Your task to perform on an android device: Open calendar and show me the second week of next month Image 0: 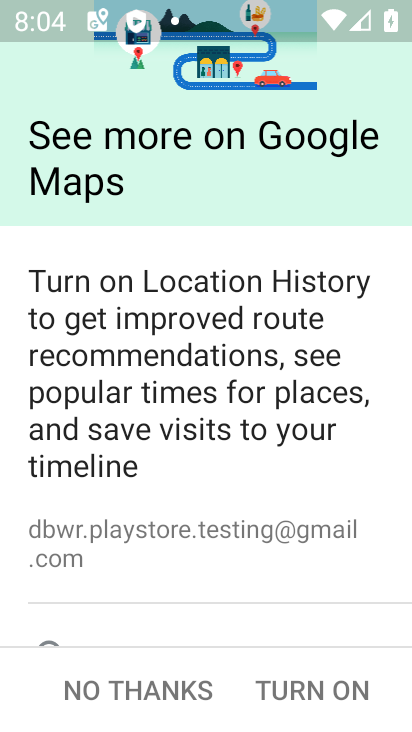
Step 0: press home button
Your task to perform on an android device: Open calendar and show me the second week of next month Image 1: 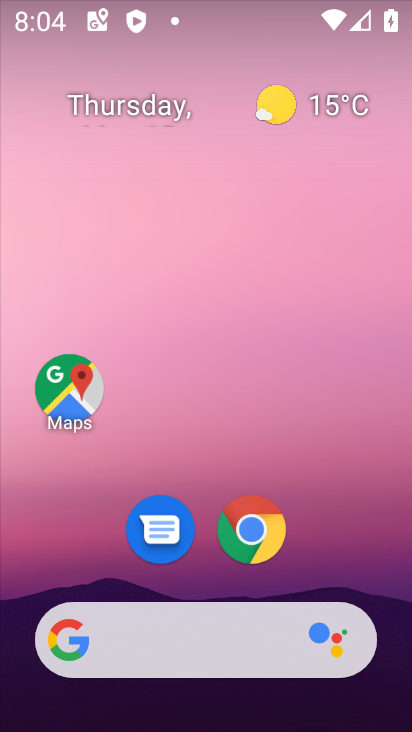
Step 1: drag from (270, 709) to (204, 39)
Your task to perform on an android device: Open calendar and show me the second week of next month Image 2: 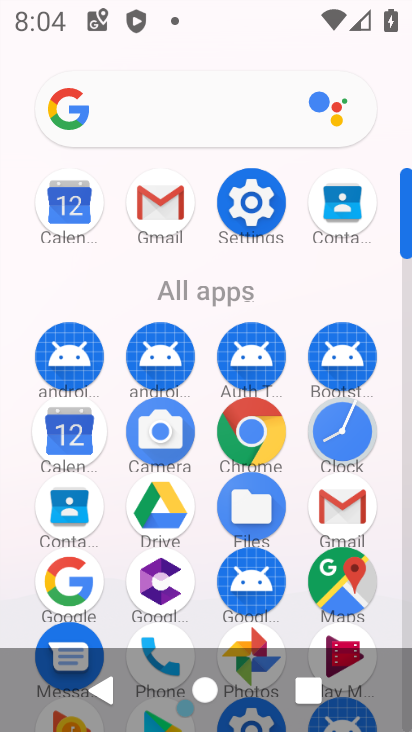
Step 2: click (45, 429)
Your task to perform on an android device: Open calendar and show me the second week of next month Image 3: 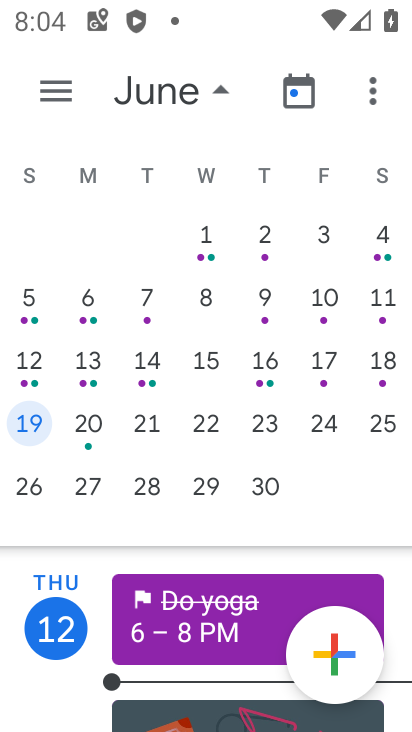
Step 3: click (21, 300)
Your task to perform on an android device: Open calendar and show me the second week of next month Image 4: 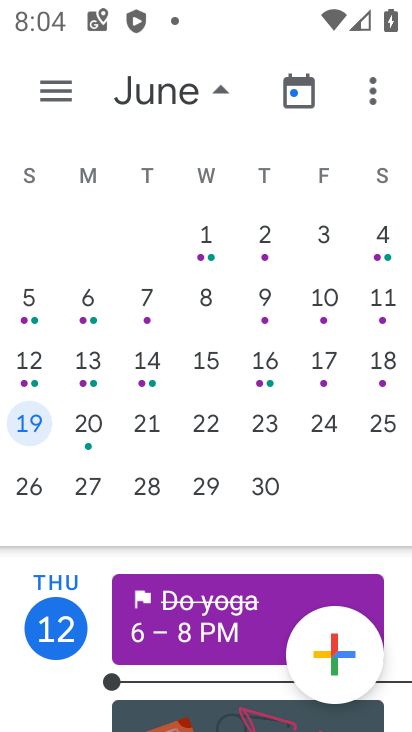
Step 4: click (31, 299)
Your task to perform on an android device: Open calendar and show me the second week of next month Image 5: 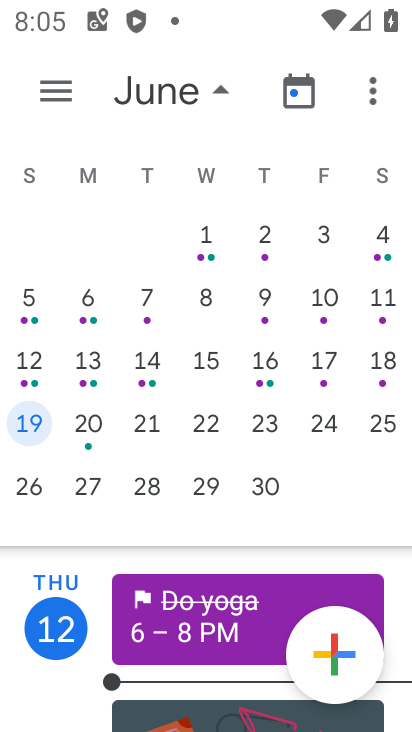
Step 5: click (31, 299)
Your task to perform on an android device: Open calendar and show me the second week of next month Image 6: 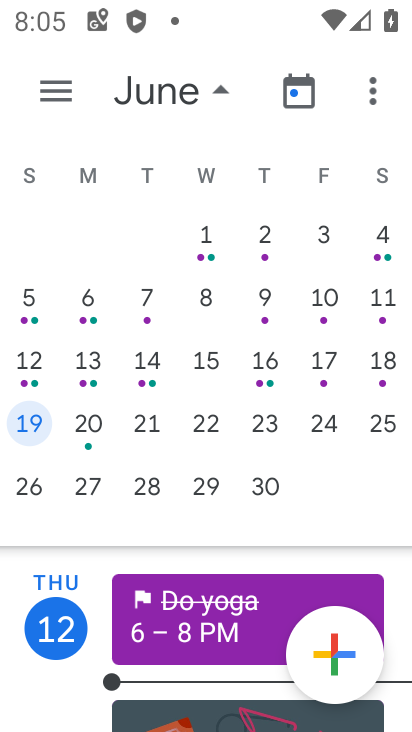
Step 6: click (29, 288)
Your task to perform on an android device: Open calendar and show me the second week of next month Image 7: 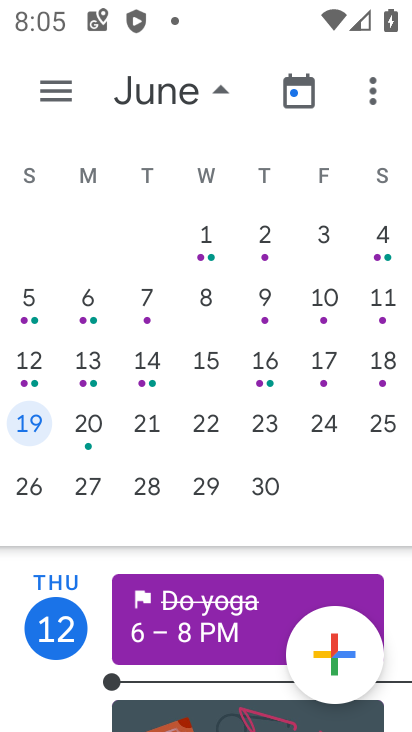
Step 7: click (95, 306)
Your task to perform on an android device: Open calendar and show me the second week of next month Image 8: 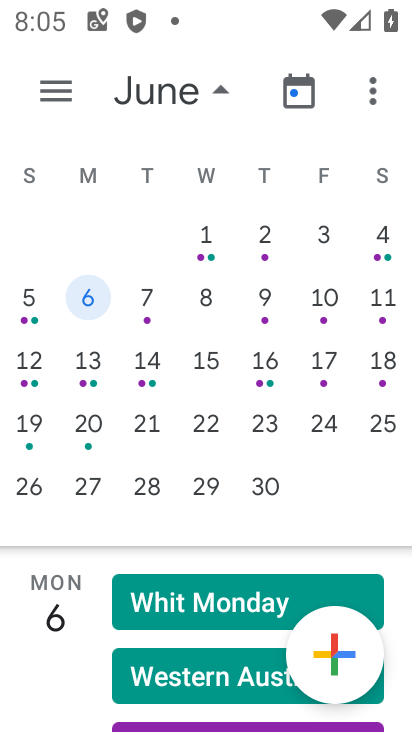
Step 8: click (25, 303)
Your task to perform on an android device: Open calendar and show me the second week of next month Image 9: 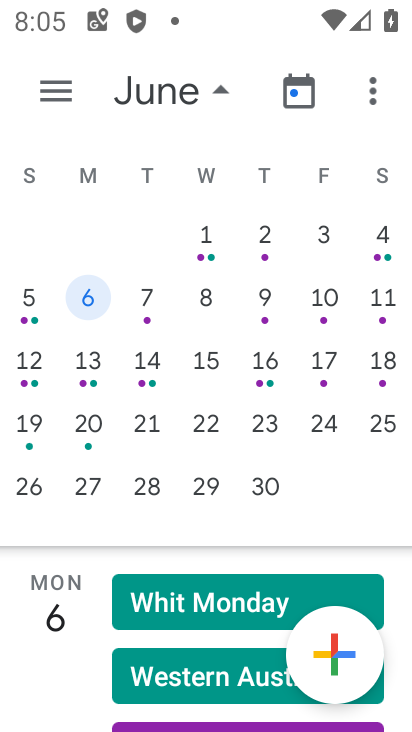
Step 9: click (28, 303)
Your task to perform on an android device: Open calendar and show me the second week of next month Image 10: 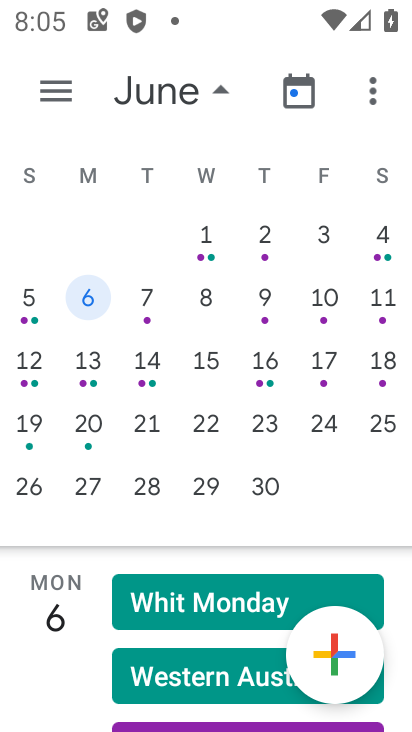
Step 10: task complete